Your task to perform on an android device: Open CNN.com Image 0: 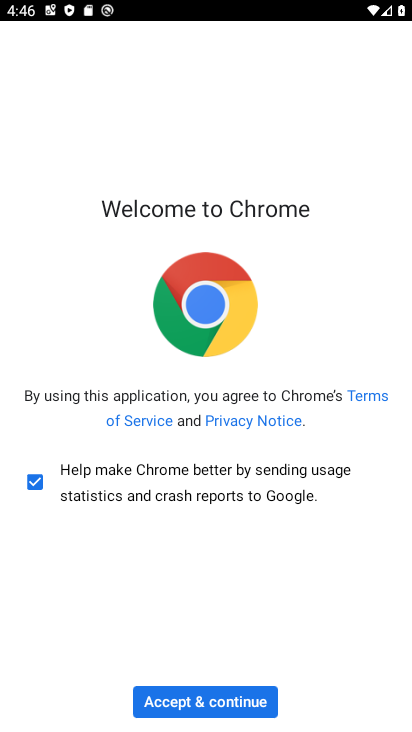
Step 0: click (229, 702)
Your task to perform on an android device: Open CNN.com Image 1: 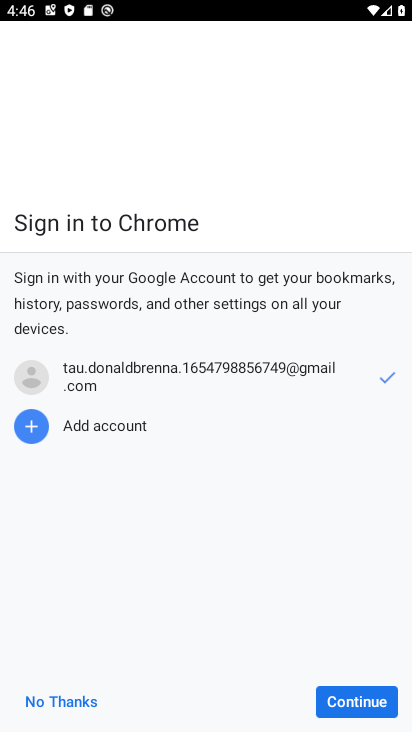
Step 1: click (343, 687)
Your task to perform on an android device: Open CNN.com Image 2: 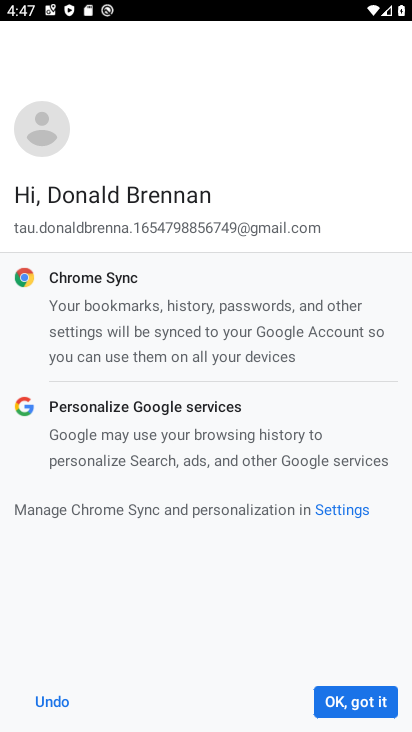
Step 2: click (355, 688)
Your task to perform on an android device: Open CNN.com Image 3: 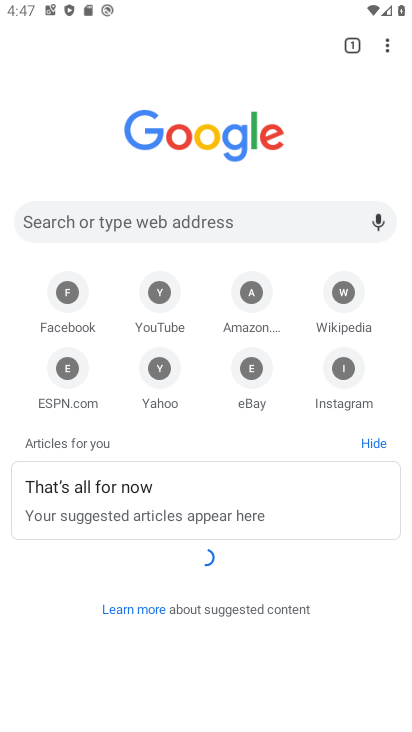
Step 3: click (194, 230)
Your task to perform on an android device: Open CNN.com Image 4: 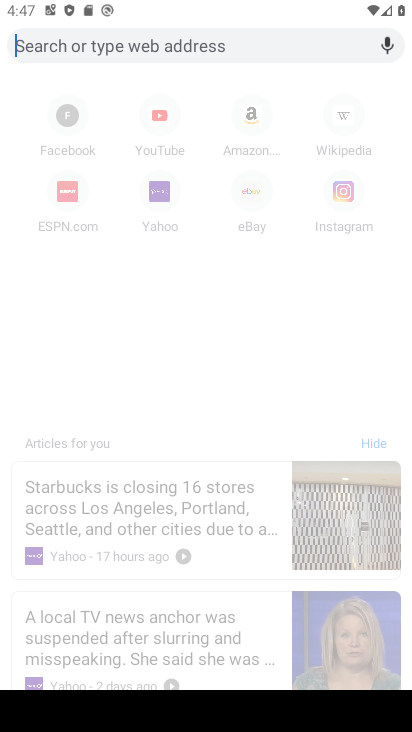
Step 4: type "CNN.com"
Your task to perform on an android device: Open CNN.com Image 5: 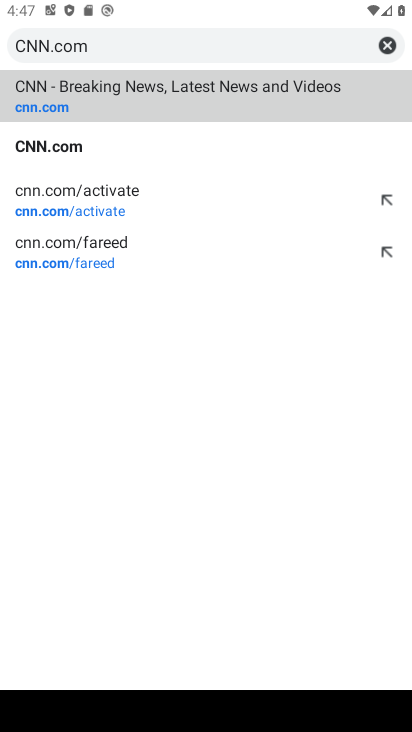
Step 5: click (177, 107)
Your task to perform on an android device: Open CNN.com Image 6: 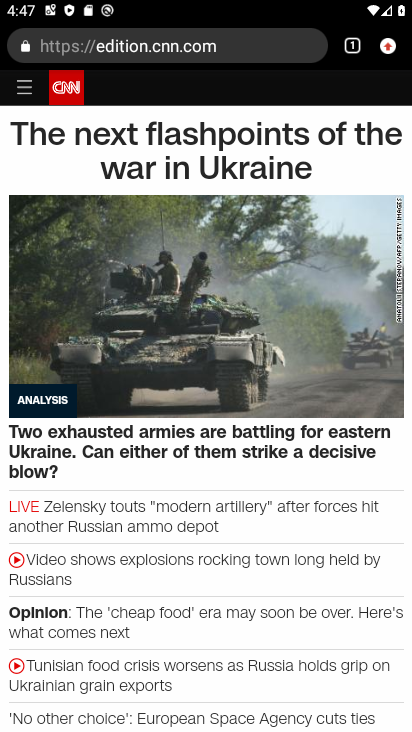
Step 6: task complete